Your task to perform on an android device: Go to calendar. Show me events next week Image 0: 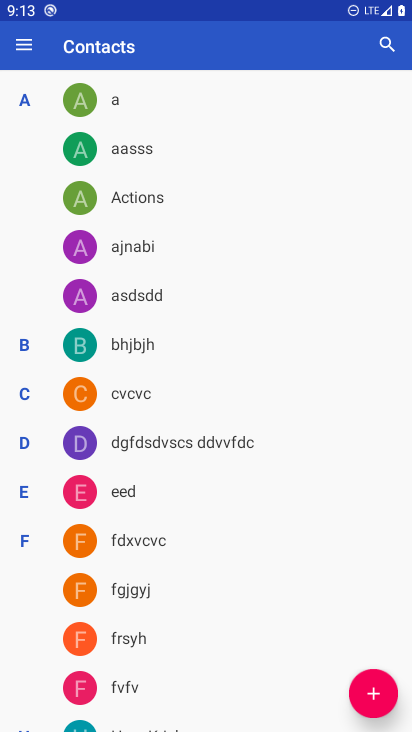
Step 0: press home button
Your task to perform on an android device: Go to calendar. Show me events next week Image 1: 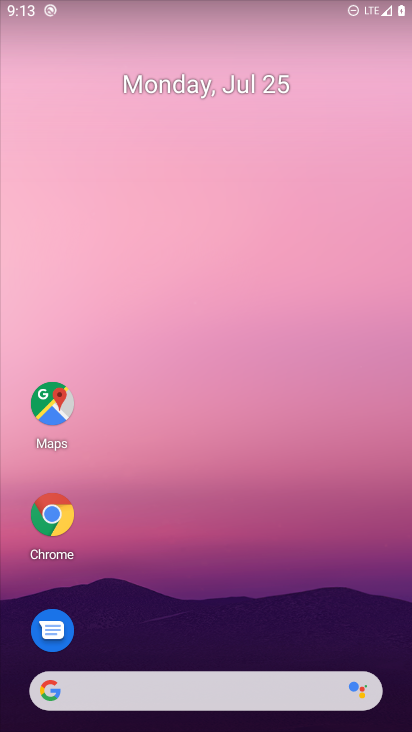
Step 1: drag from (28, 699) to (148, 307)
Your task to perform on an android device: Go to calendar. Show me events next week Image 2: 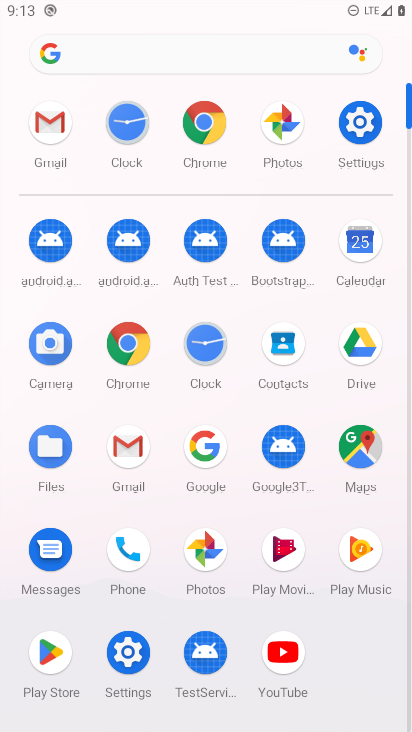
Step 2: click (373, 255)
Your task to perform on an android device: Go to calendar. Show me events next week Image 3: 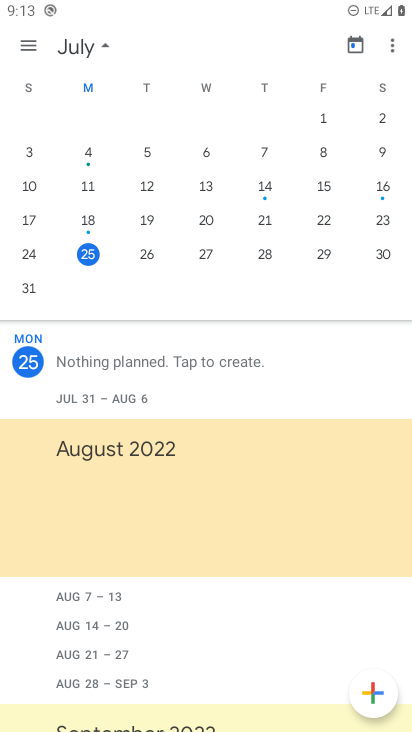
Step 3: task complete